Your task to perform on an android device: check the backup settings in the google photos Image 0: 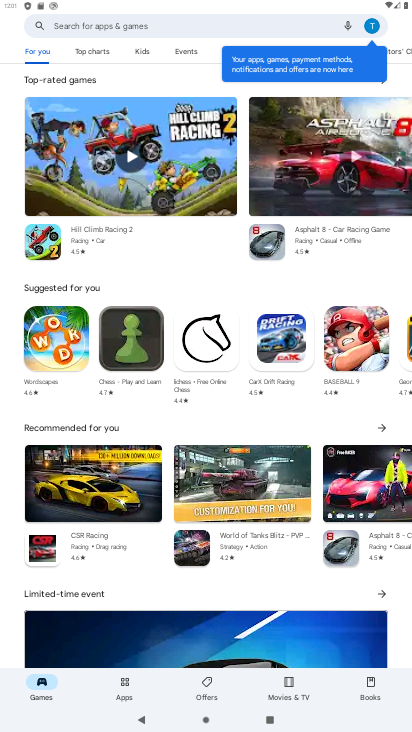
Step 0: click (377, 31)
Your task to perform on an android device: check the backup settings in the google photos Image 1: 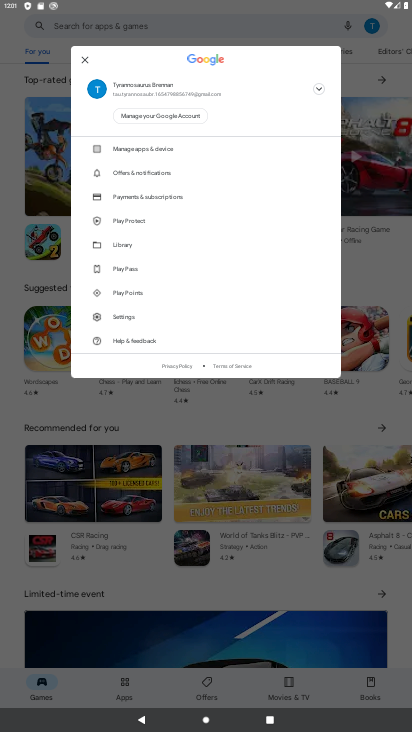
Step 1: click (377, 31)
Your task to perform on an android device: check the backup settings in the google photos Image 2: 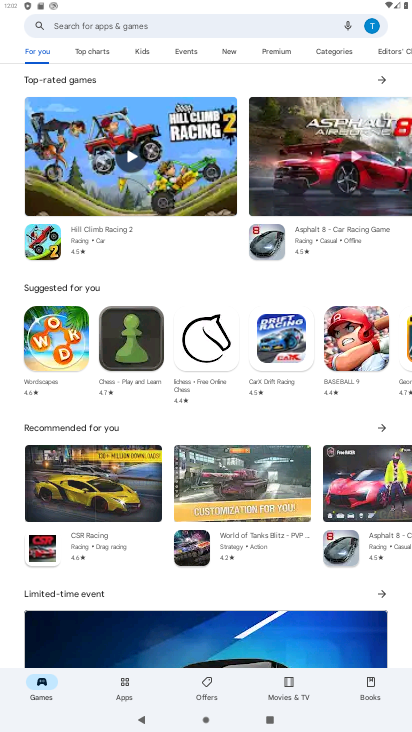
Step 2: task complete